Your task to perform on an android device: allow notifications from all sites in the chrome app Image 0: 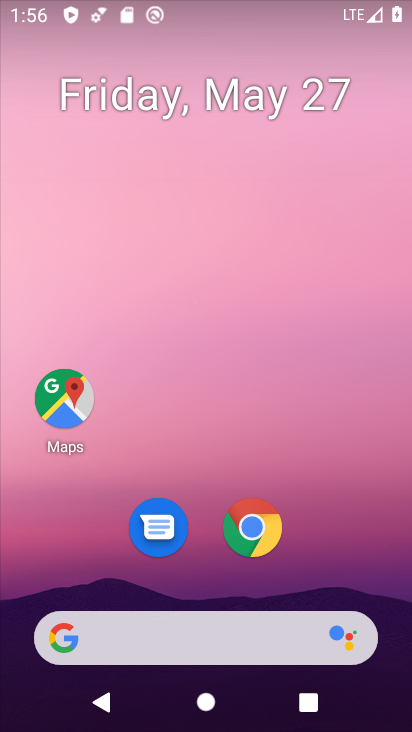
Step 0: click (259, 532)
Your task to perform on an android device: allow notifications from all sites in the chrome app Image 1: 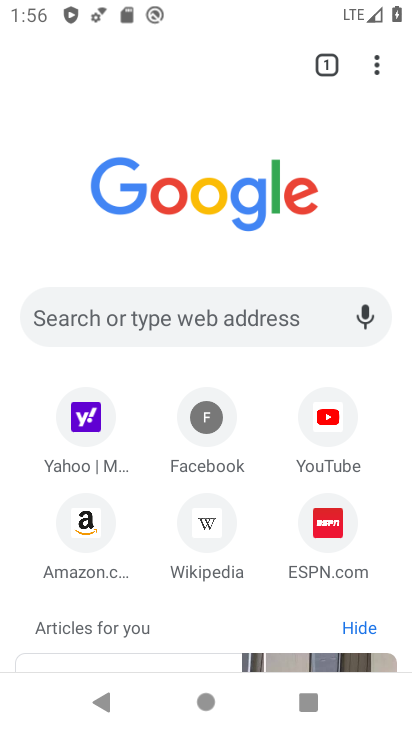
Step 1: click (379, 64)
Your task to perform on an android device: allow notifications from all sites in the chrome app Image 2: 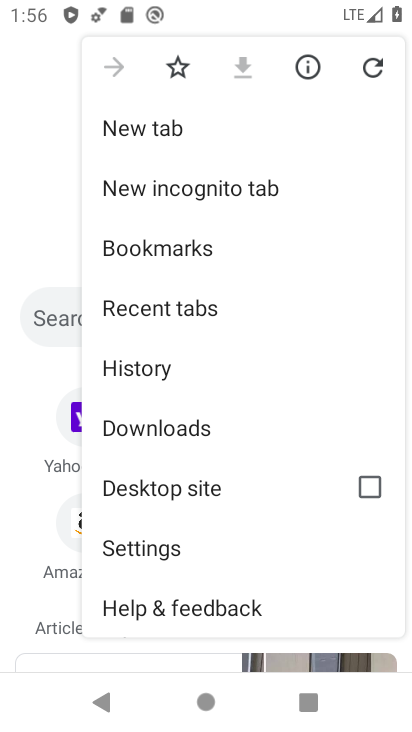
Step 2: click (186, 546)
Your task to perform on an android device: allow notifications from all sites in the chrome app Image 3: 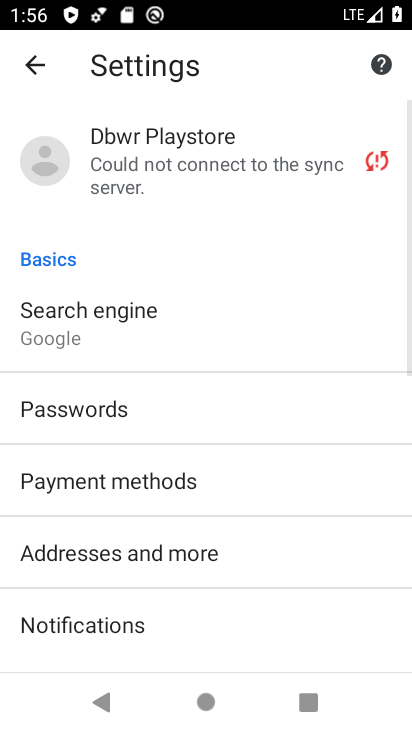
Step 3: click (153, 617)
Your task to perform on an android device: allow notifications from all sites in the chrome app Image 4: 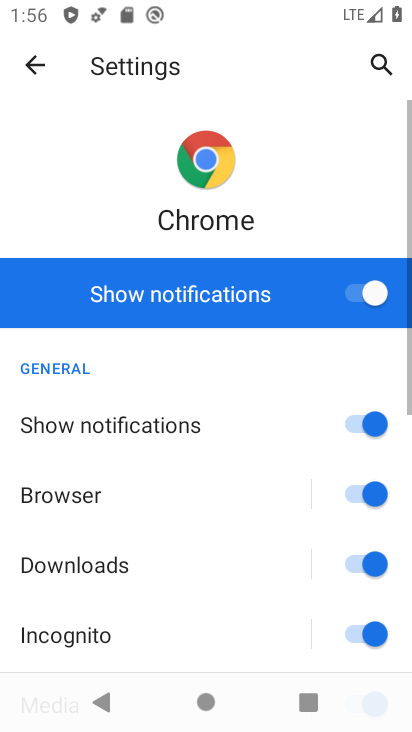
Step 4: task complete